Your task to perform on an android device: see sites visited before in the chrome app Image 0: 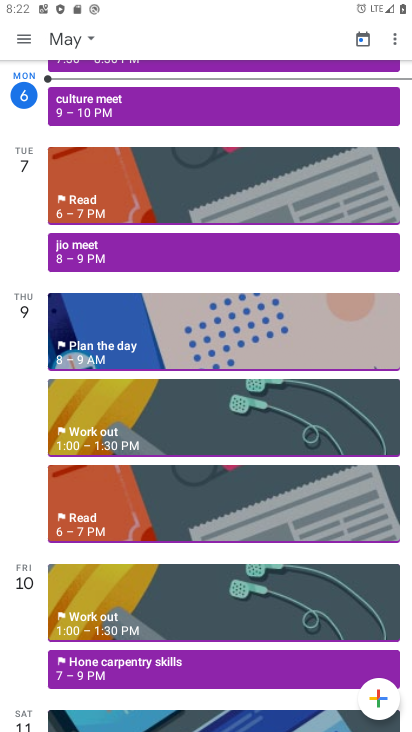
Step 0: press home button
Your task to perform on an android device: see sites visited before in the chrome app Image 1: 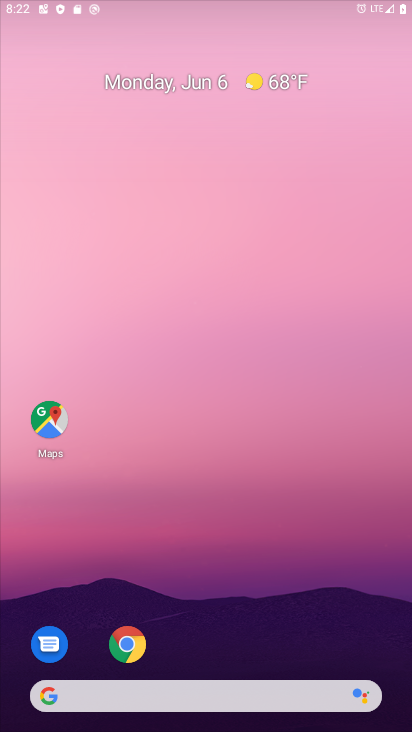
Step 1: drag from (213, 712) to (277, 83)
Your task to perform on an android device: see sites visited before in the chrome app Image 2: 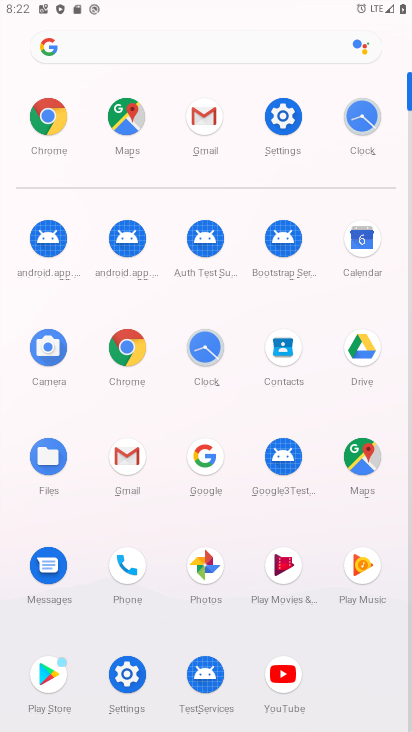
Step 2: click (70, 127)
Your task to perform on an android device: see sites visited before in the chrome app Image 3: 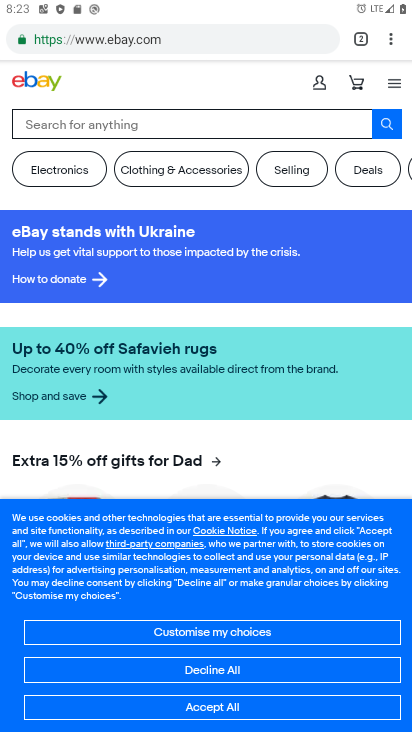
Step 3: click (387, 39)
Your task to perform on an android device: see sites visited before in the chrome app Image 4: 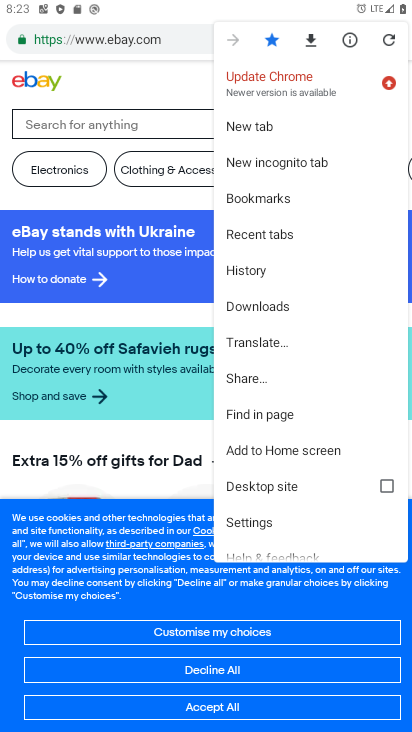
Step 4: click (273, 520)
Your task to perform on an android device: see sites visited before in the chrome app Image 5: 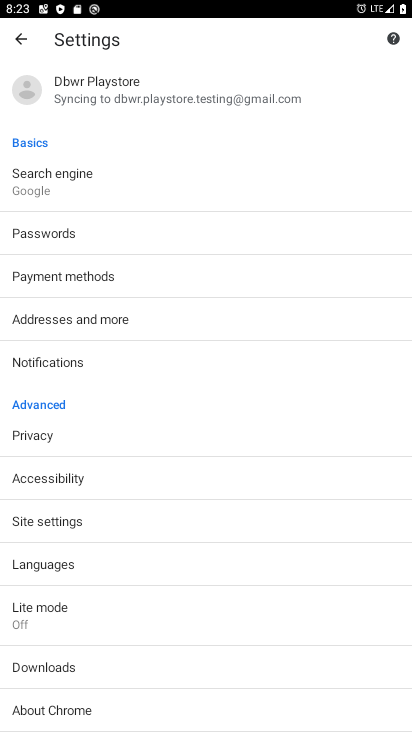
Step 5: click (50, 525)
Your task to perform on an android device: see sites visited before in the chrome app Image 6: 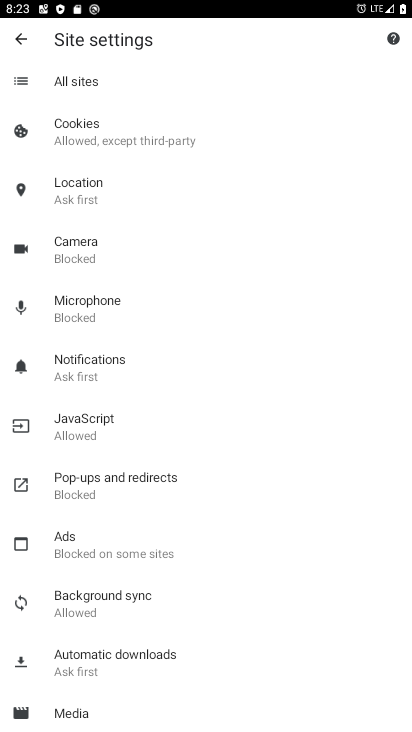
Step 6: click (93, 95)
Your task to perform on an android device: see sites visited before in the chrome app Image 7: 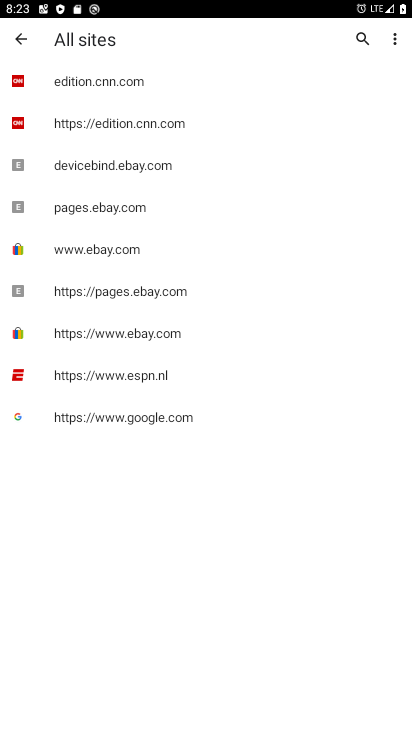
Step 7: task complete